Your task to perform on an android device: Go to Yahoo.com Image 0: 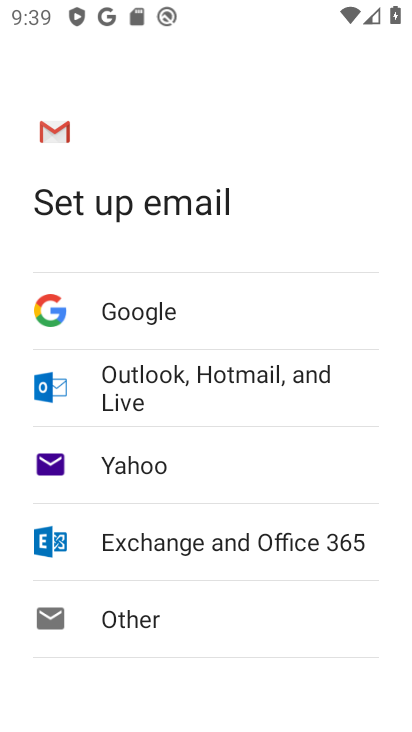
Step 0: press home button
Your task to perform on an android device: Go to Yahoo.com Image 1: 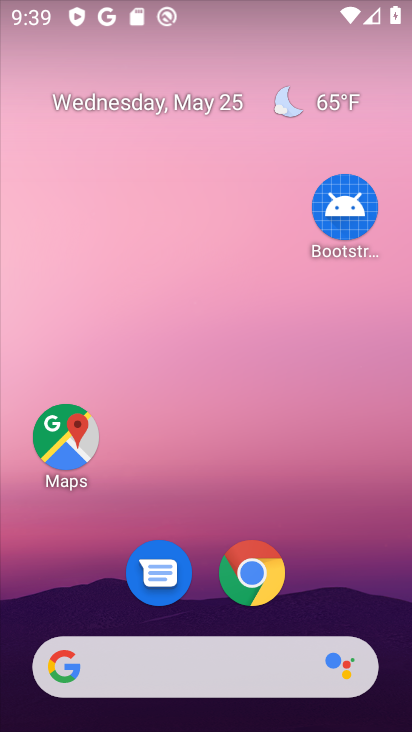
Step 1: drag from (344, 567) to (281, 24)
Your task to perform on an android device: Go to Yahoo.com Image 2: 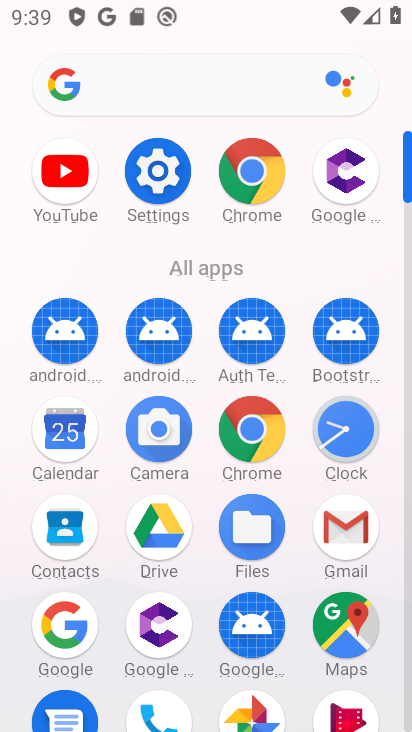
Step 2: drag from (215, 274) to (205, 48)
Your task to perform on an android device: Go to Yahoo.com Image 3: 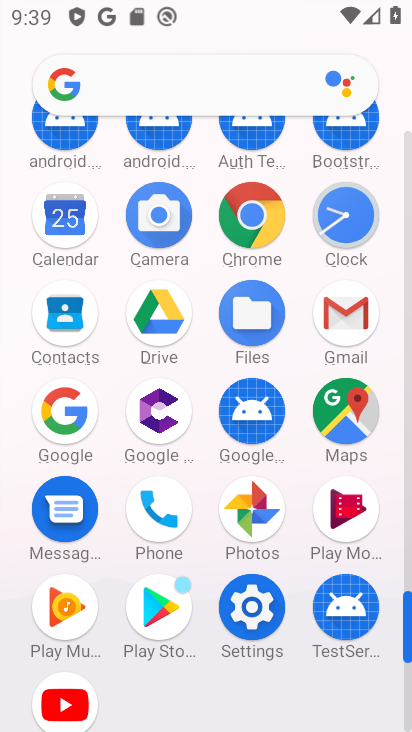
Step 3: click (234, 230)
Your task to perform on an android device: Go to Yahoo.com Image 4: 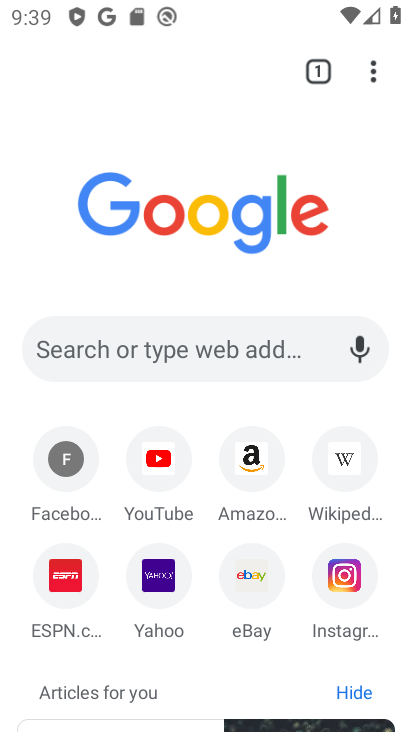
Step 4: click (161, 566)
Your task to perform on an android device: Go to Yahoo.com Image 5: 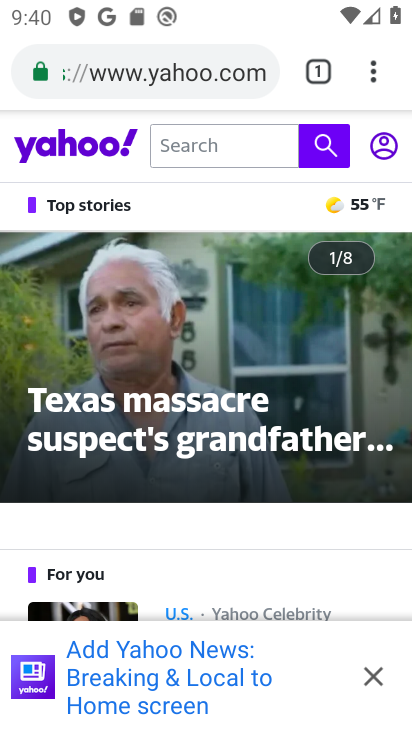
Step 5: task complete